Your task to perform on an android device: toggle show notifications on the lock screen Image 0: 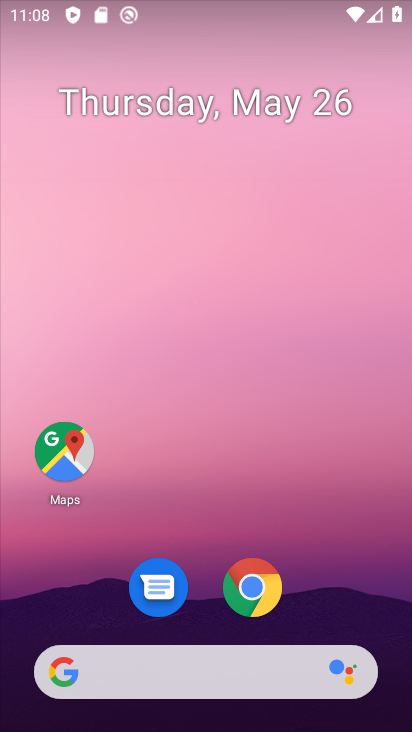
Step 0: press home button
Your task to perform on an android device: toggle show notifications on the lock screen Image 1: 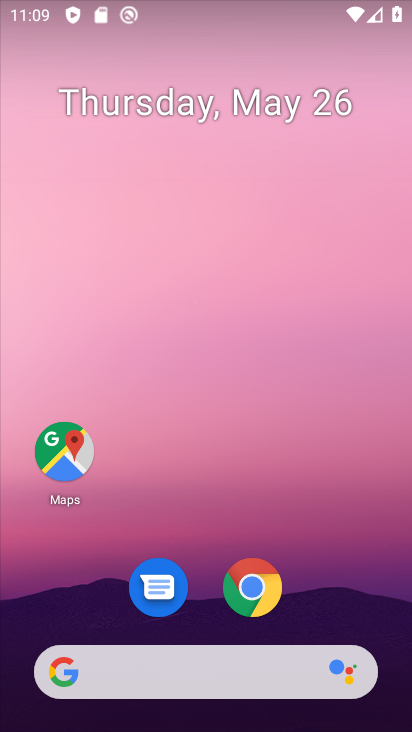
Step 1: drag from (283, 615) to (347, 98)
Your task to perform on an android device: toggle show notifications on the lock screen Image 2: 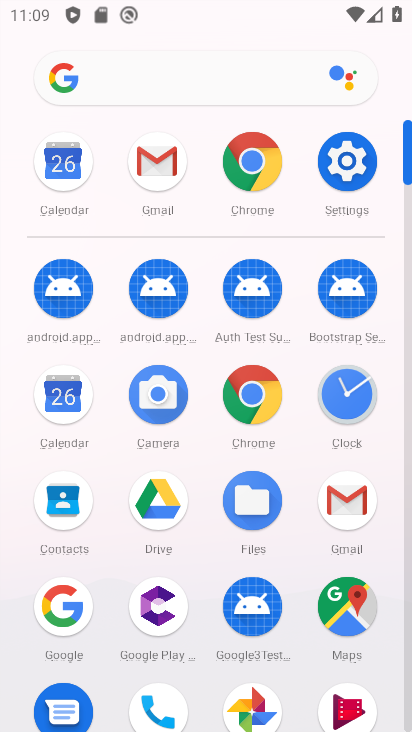
Step 2: click (338, 159)
Your task to perform on an android device: toggle show notifications on the lock screen Image 3: 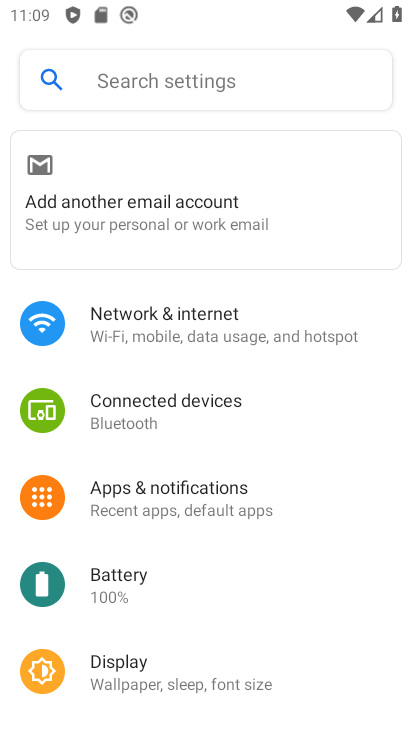
Step 3: click (191, 78)
Your task to perform on an android device: toggle show notifications on the lock screen Image 4: 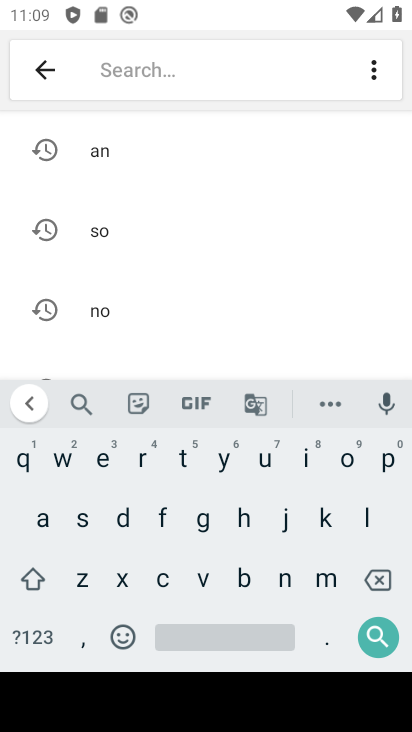
Step 4: click (84, 309)
Your task to perform on an android device: toggle show notifications on the lock screen Image 5: 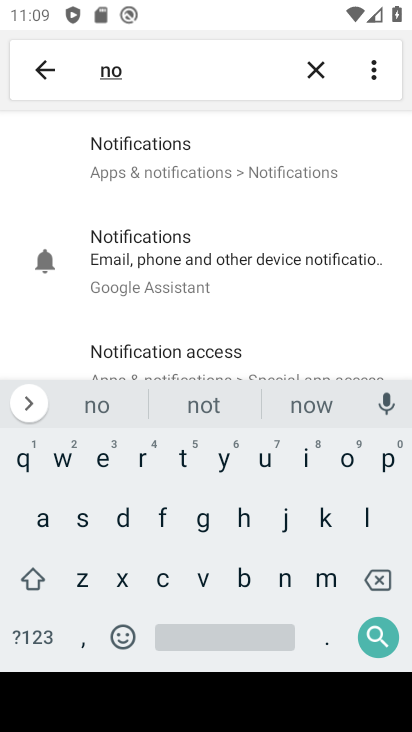
Step 5: click (209, 144)
Your task to perform on an android device: toggle show notifications on the lock screen Image 6: 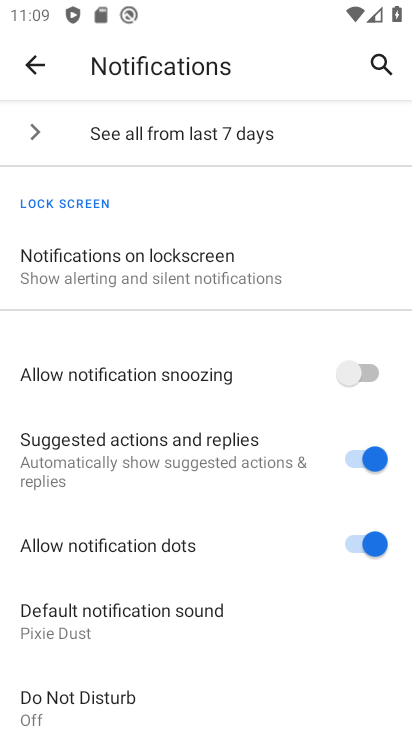
Step 6: click (143, 260)
Your task to perform on an android device: toggle show notifications on the lock screen Image 7: 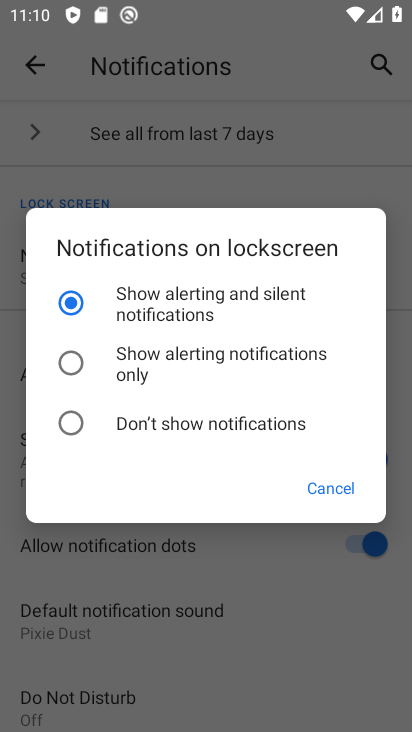
Step 7: task complete